Your task to perform on an android device: Add usb-a to the cart on amazon.com Image 0: 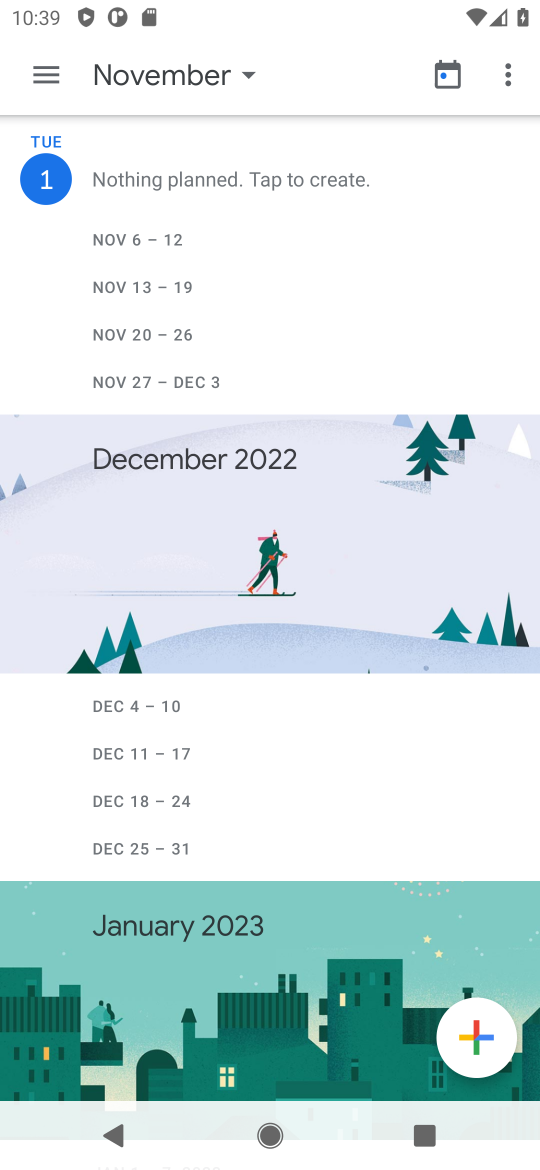
Step 0: press home button
Your task to perform on an android device: Add usb-a to the cart on amazon.com Image 1: 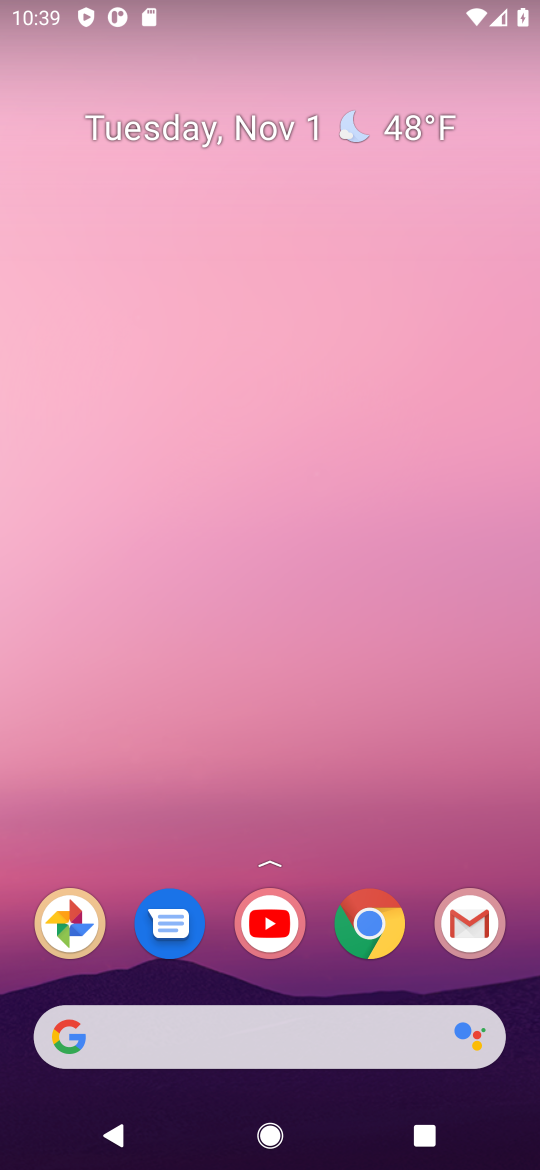
Step 1: click (355, 899)
Your task to perform on an android device: Add usb-a to the cart on amazon.com Image 2: 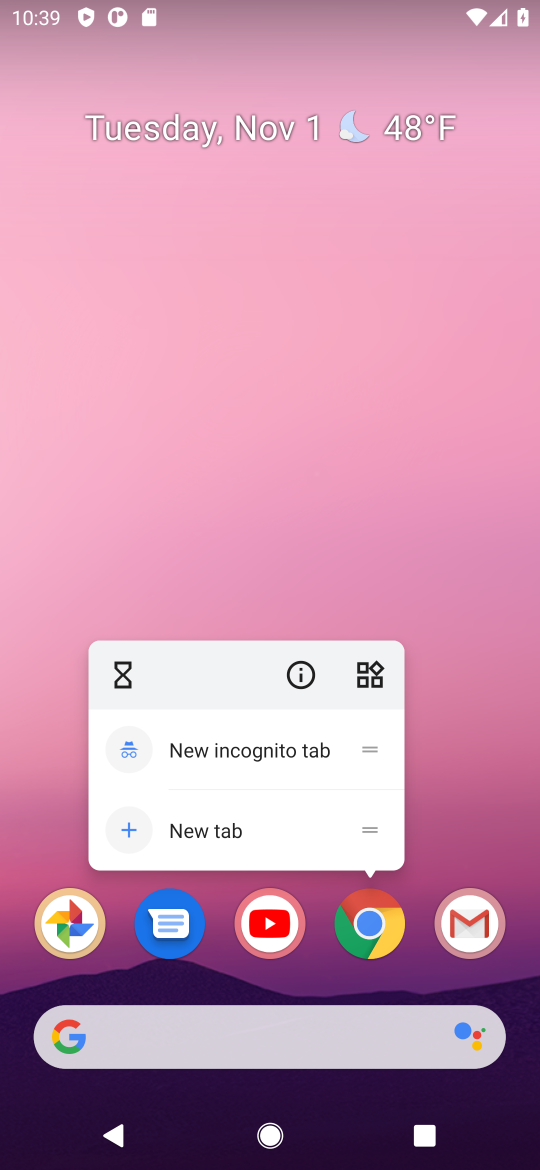
Step 2: click (355, 899)
Your task to perform on an android device: Add usb-a to the cart on amazon.com Image 3: 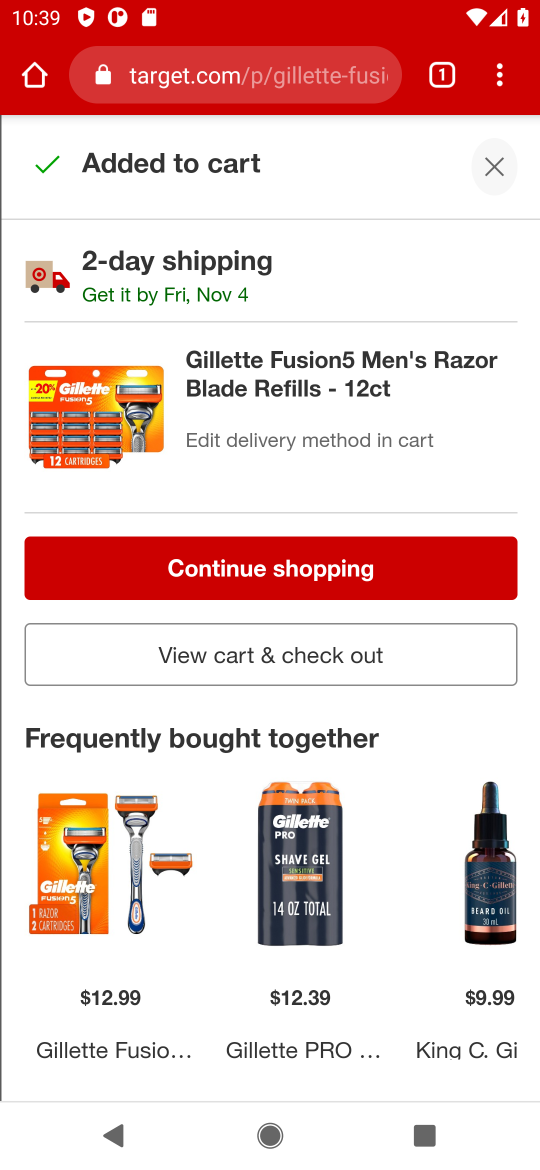
Step 3: click (281, 85)
Your task to perform on an android device: Add usb-a to the cart on amazon.com Image 4: 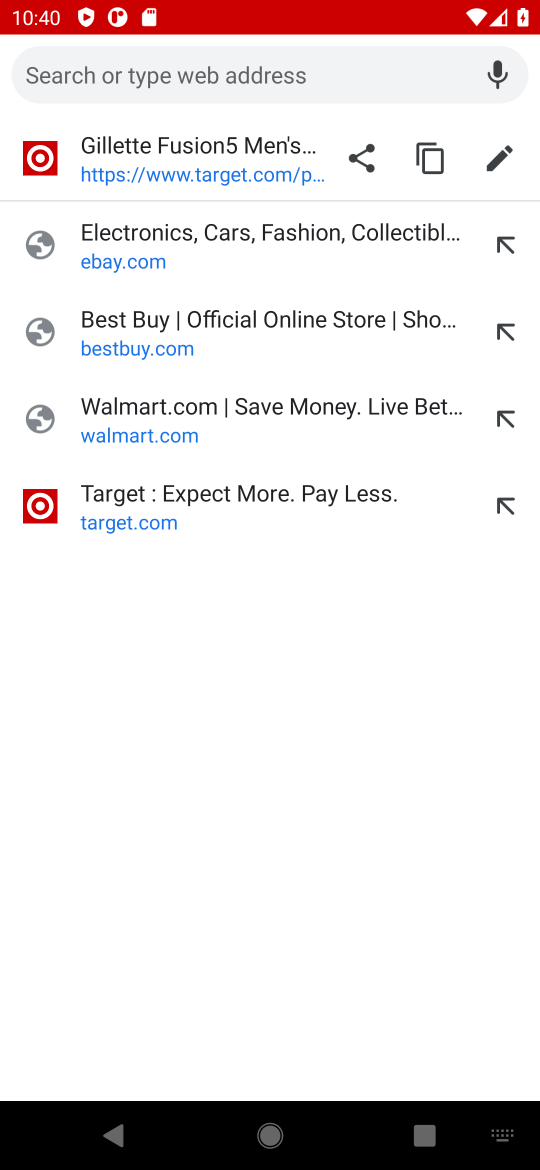
Step 4: type "amazon.com"
Your task to perform on an android device: Add usb-a to the cart on amazon.com Image 5: 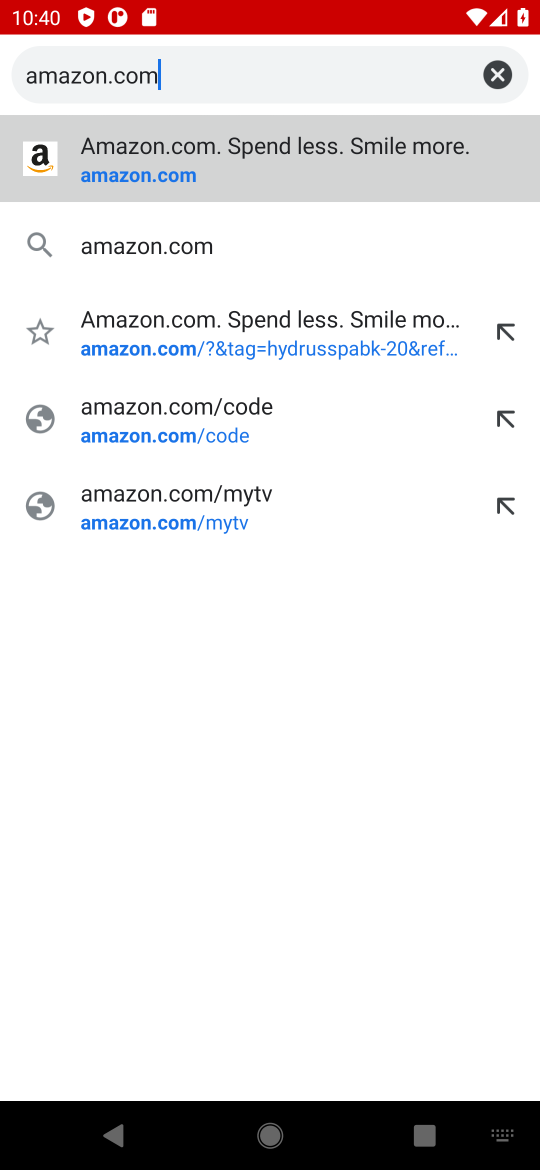
Step 5: click (382, 183)
Your task to perform on an android device: Add usb-a to the cart on amazon.com Image 6: 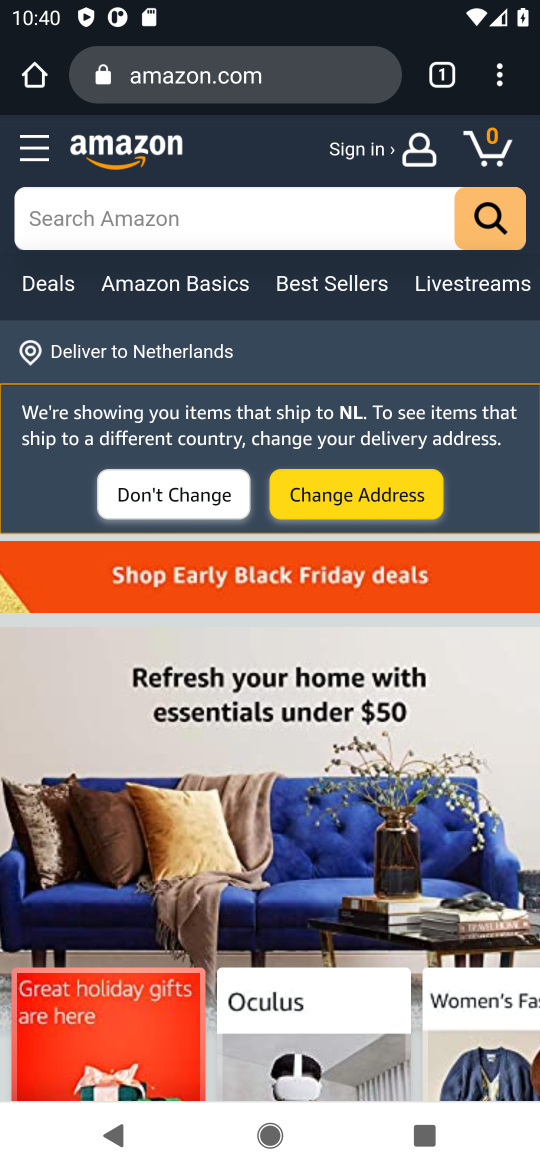
Step 6: click (309, 210)
Your task to perform on an android device: Add usb-a to the cart on amazon.com Image 7: 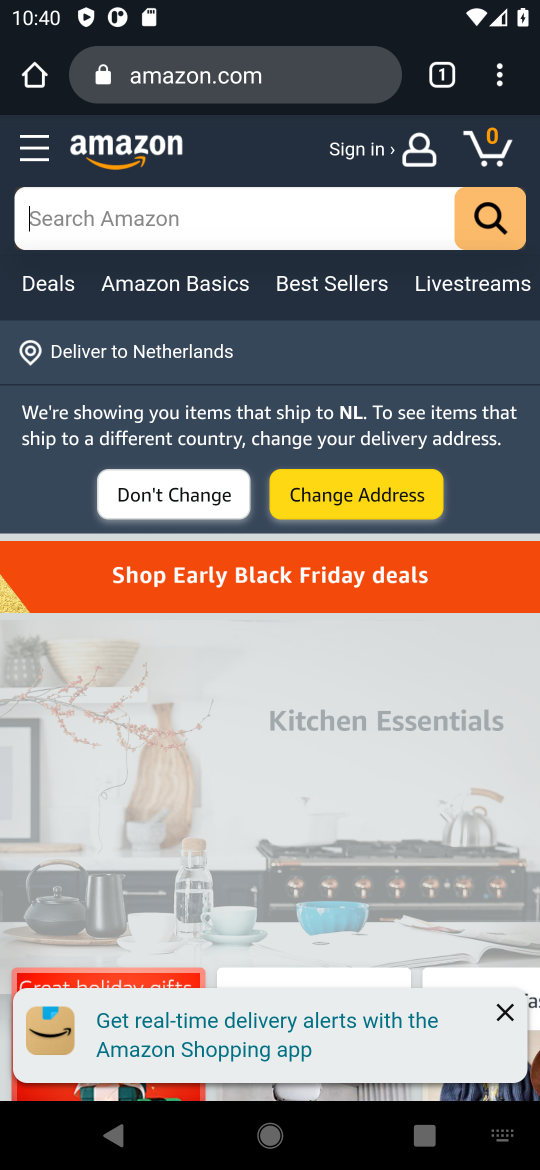
Step 7: type "usb-a"
Your task to perform on an android device: Add usb-a to the cart on amazon.com Image 8: 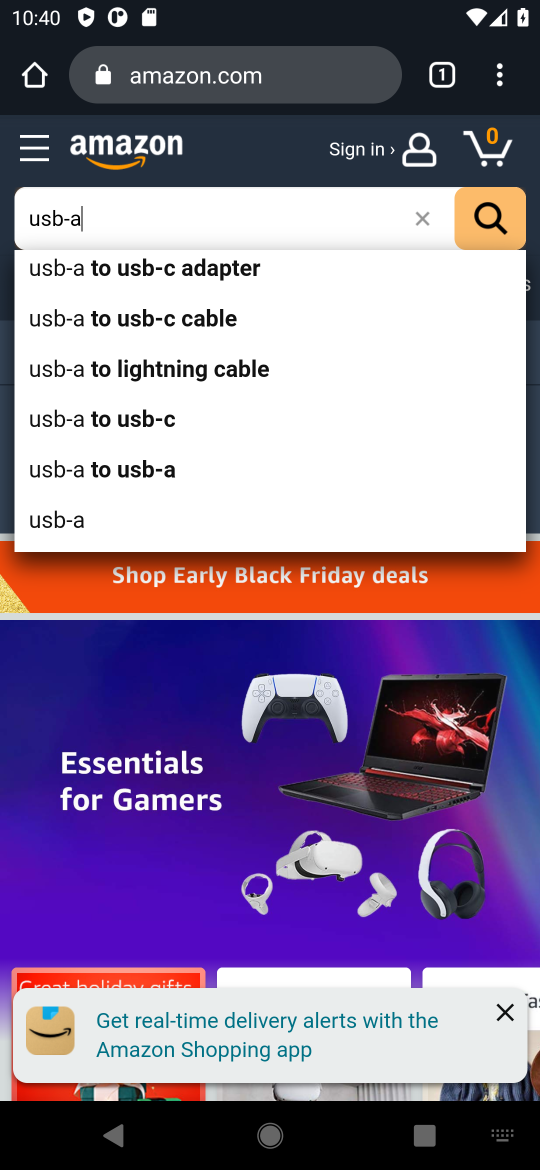
Step 8: press enter
Your task to perform on an android device: Add usb-a to the cart on amazon.com Image 9: 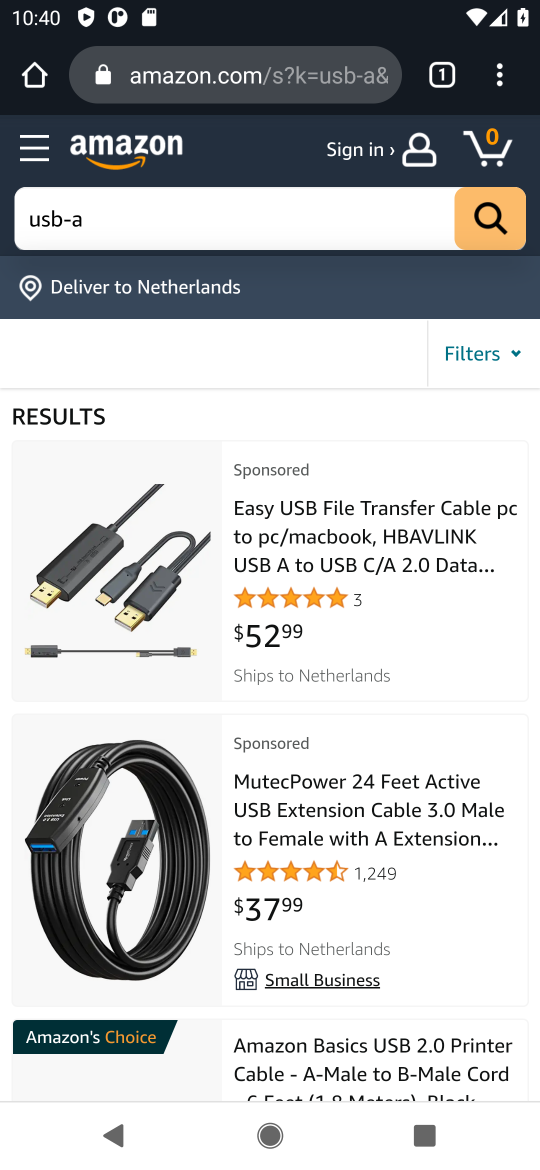
Step 9: drag from (212, 874) to (151, 454)
Your task to perform on an android device: Add usb-a to the cart on amazon.com Image 10: 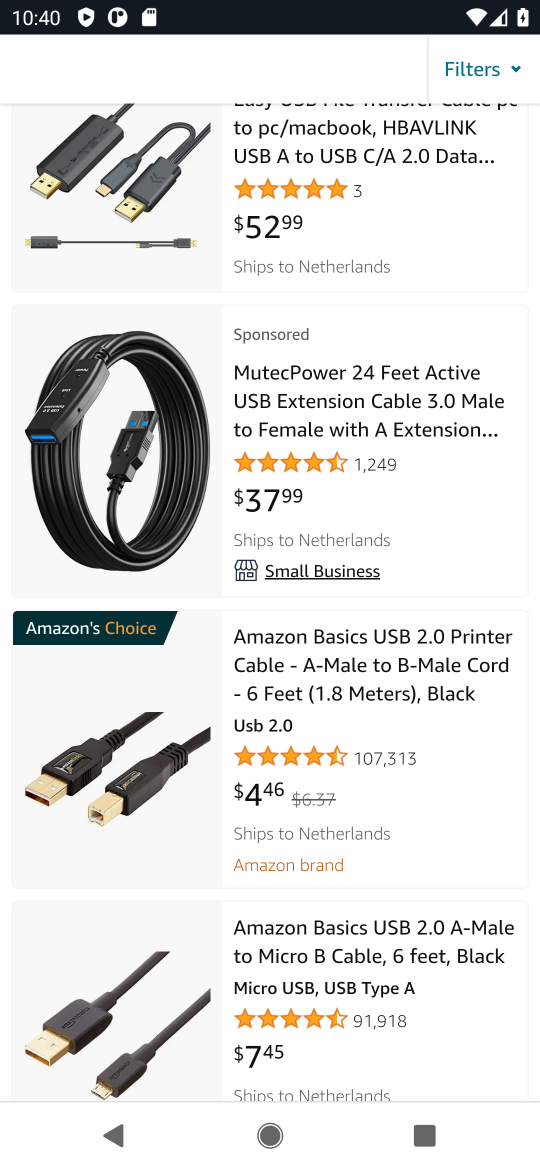
Step 10: drag from (226, 232) to (228, 895)
Your task to perform on an android device: Add usb-a to the cart on amazon.com Image 11: 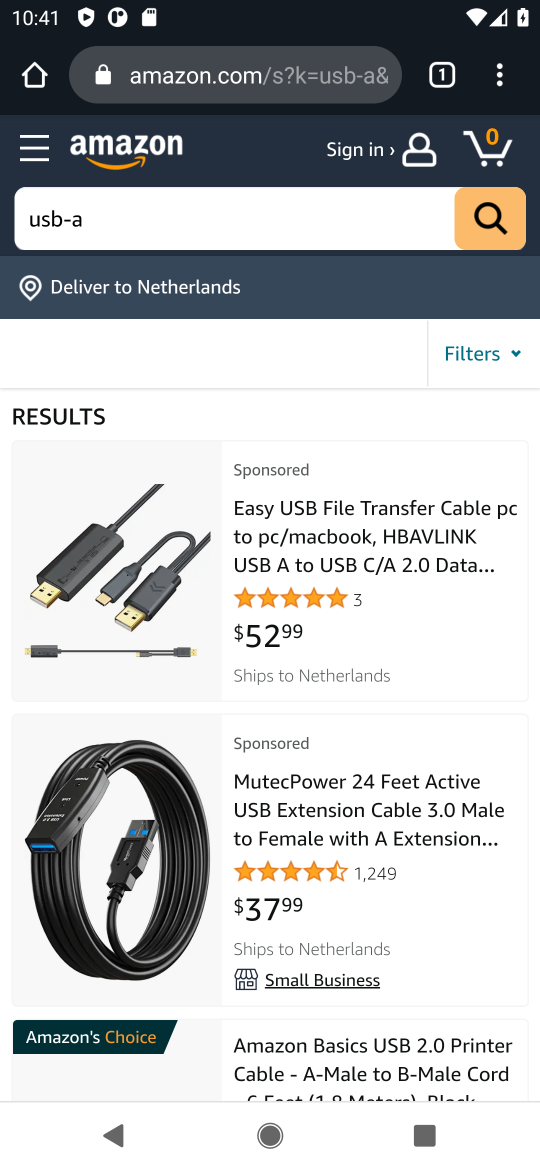
Step 11: click (122, 586)
Your task to perform on an android device: Add usb-a to the cart on amazon.com Image 12: 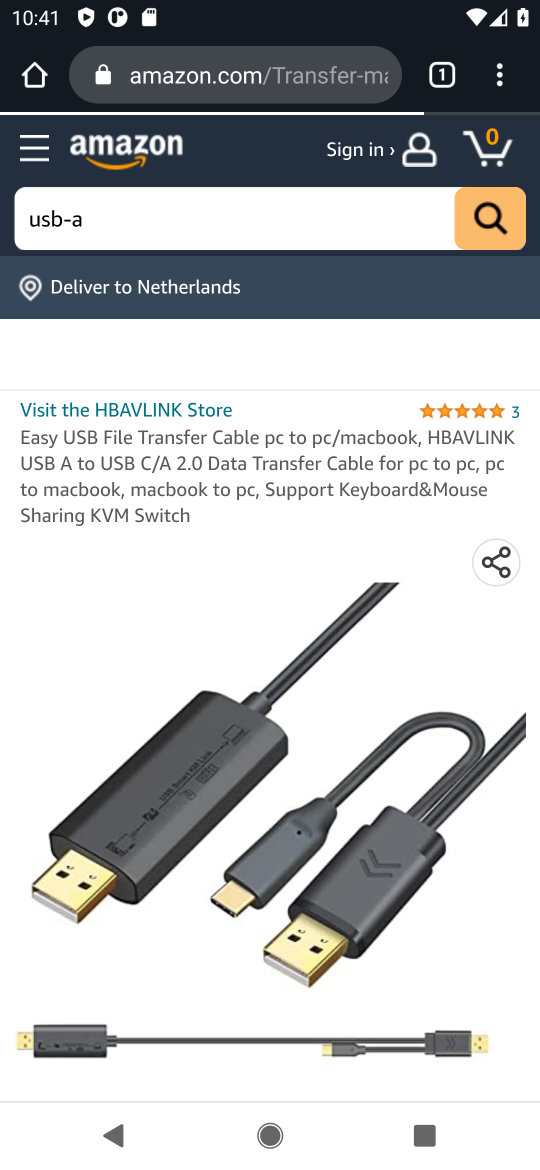
Step 12: drag from (408, 980) to (290, 443)
Your task to perform on an android device: Add usb-a to the cart on amazon.com Image 13: 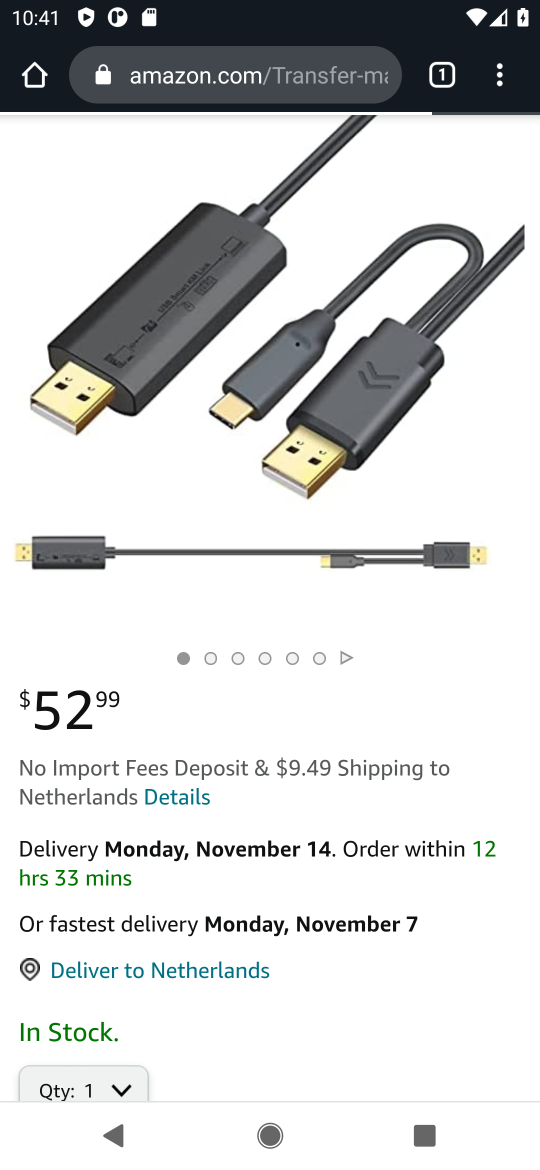
Step 13: drag from (339, 980) to (154, 337)
Your task to perform on an android device: Add usb-a to the cart on amazon.com Image 14: 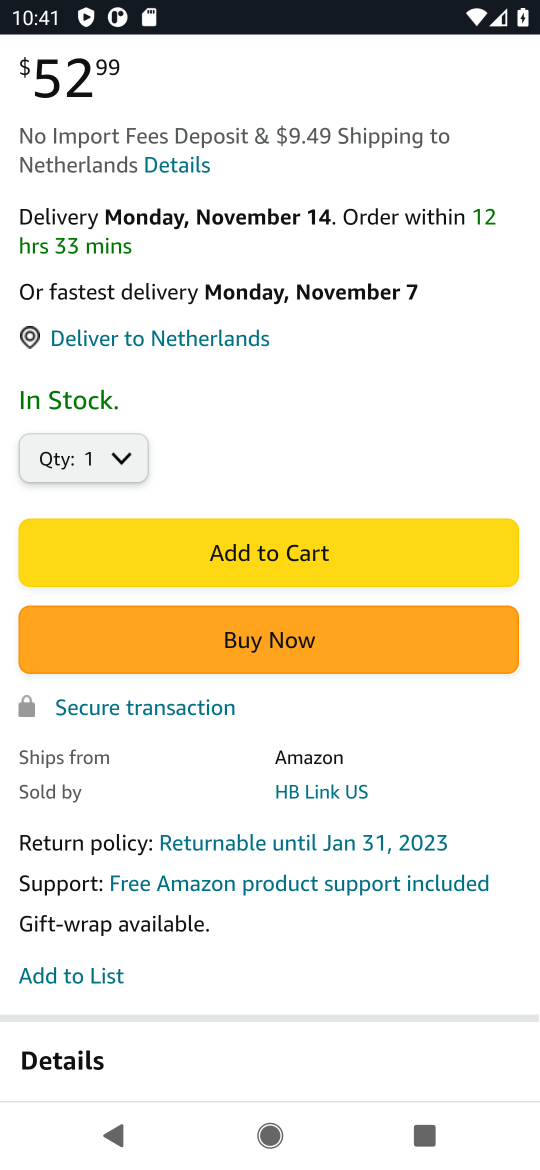
Step 14: click (327, 553)
Your task to perform on an android device: Add usb-a to the cart on amazon.com Image 15: 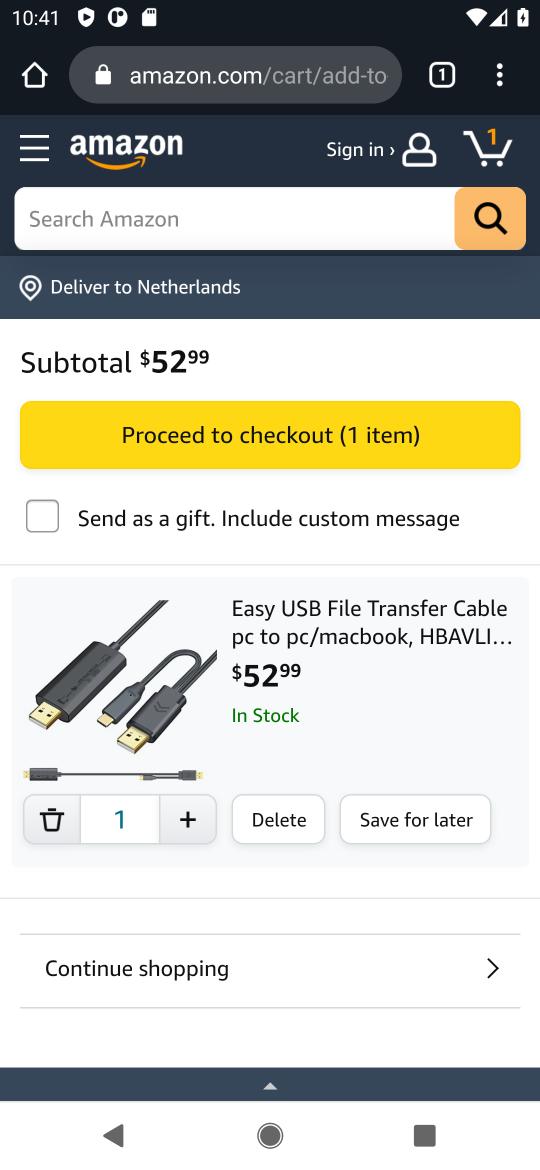
Step 15: task complete